Your task to perform on an android device: turn on sleep mode Image 0: 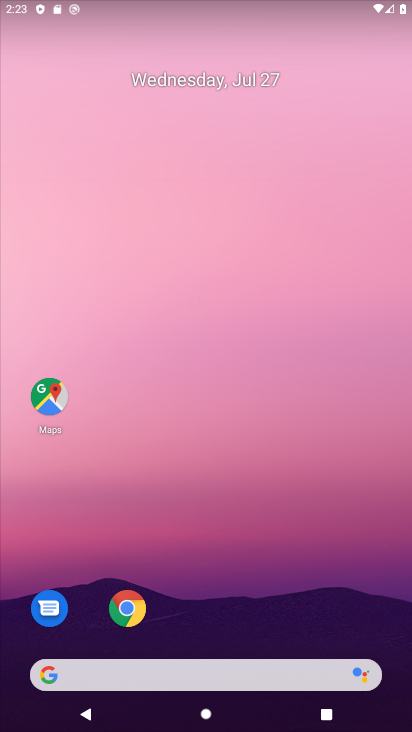
Step 0: press home button
Your task to perform on an android device: turn on sleep mode Image 1: 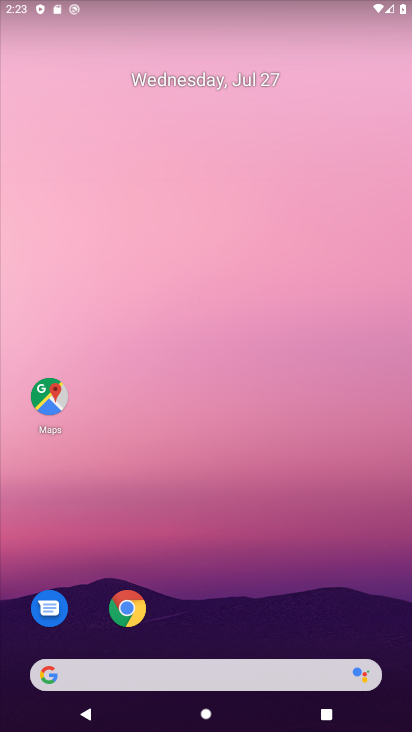
Step 1: drag from (339, 601) to (393, 0)
Your task to perform on an android device: turn on sleep mode Image 2: 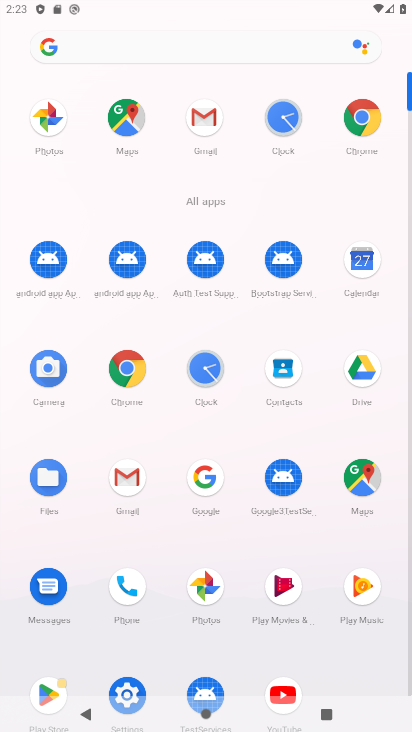
Step 2: drag from (239, 571) to (257, 118)
Your task to perform on an android device: turn on sleep mode Image 3: 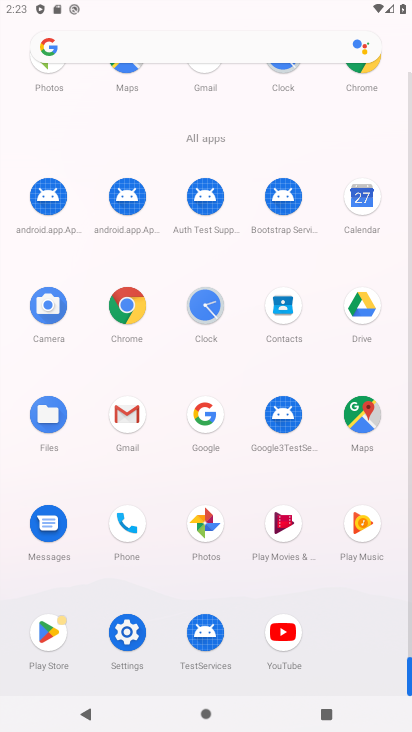
Step 3: click (117, 621)
Your task to perform on an android device: turn on sleep mode Image 4: 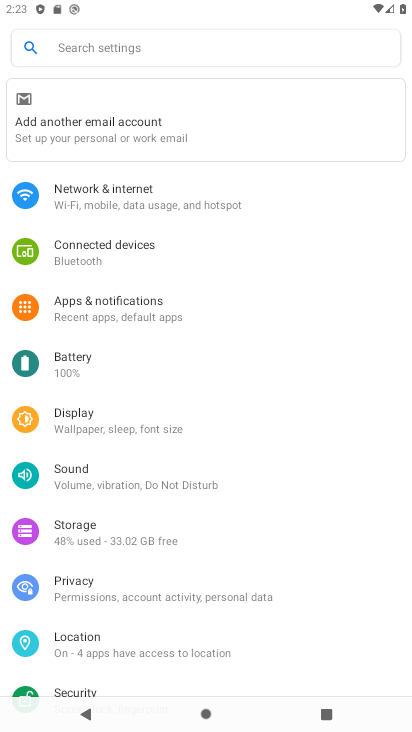
Step 4: click (84, 406)
Your task to perform on an android device: turn on sleep mode Image 5: 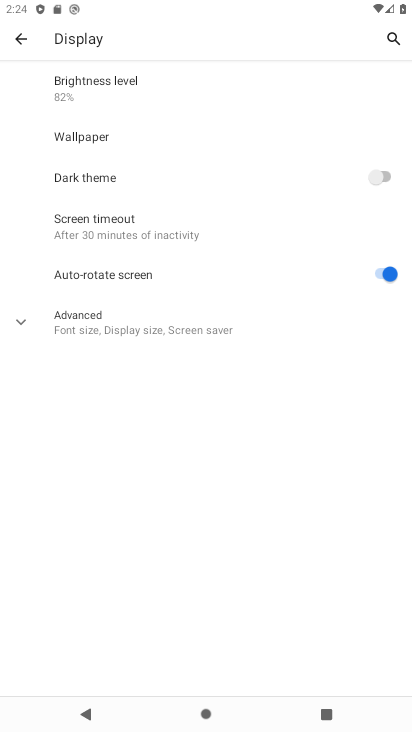
Step 5: click (53, 312)
Your task to perform on an android device: turn on sleep mode Image 6: 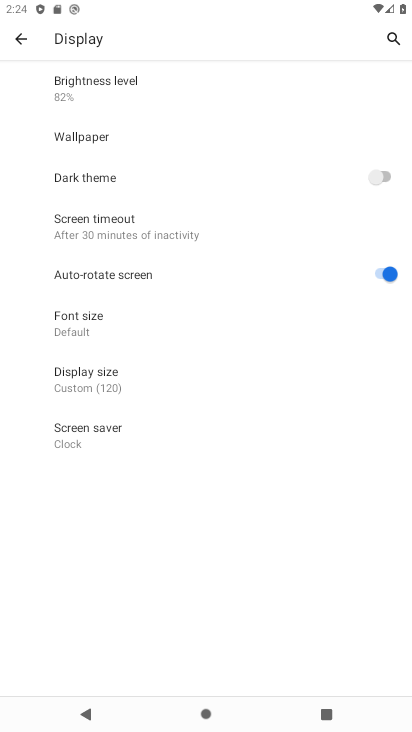
Step 6: task complete